Your task to perform on an android device: turn on bluetooth scan Image 0: 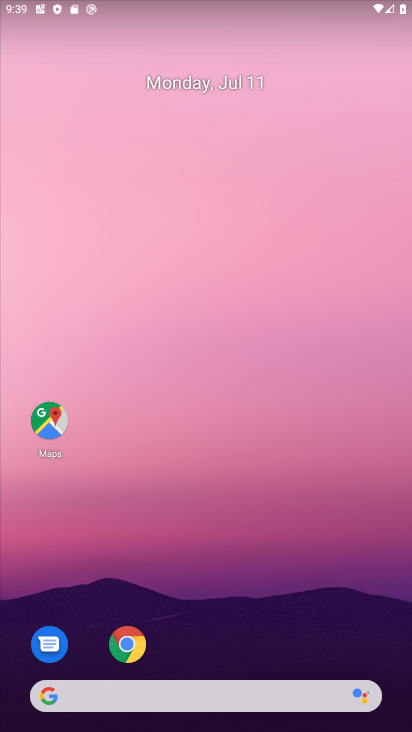
Step 0: drag from (210, 659) to (178, 170)
Your task to perform on an android device: turn on bluetooth scan Image 1: 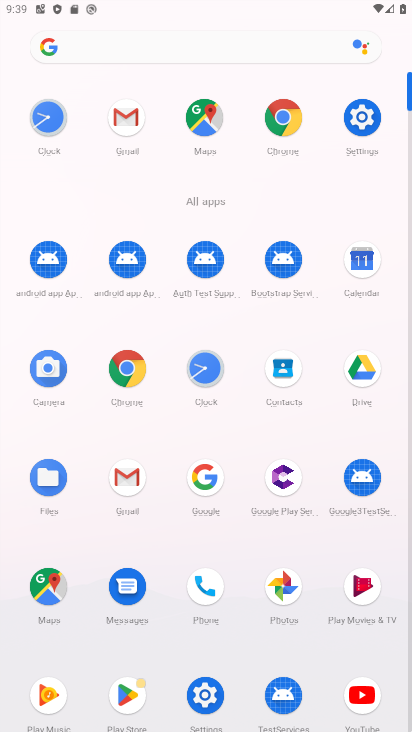
Step 1: click (362, 113)
Your task to perform on an android device: turn on bluetooth scan Image 2: 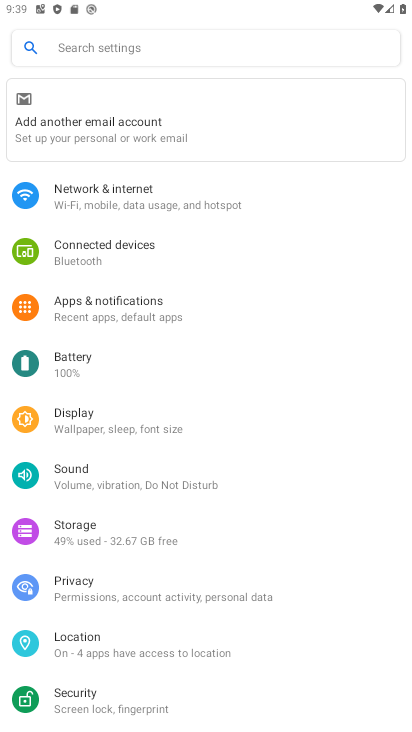
Step 2: click (120, 639)
Your task to perform on an android device: turn on bluetooth scan Image 3: 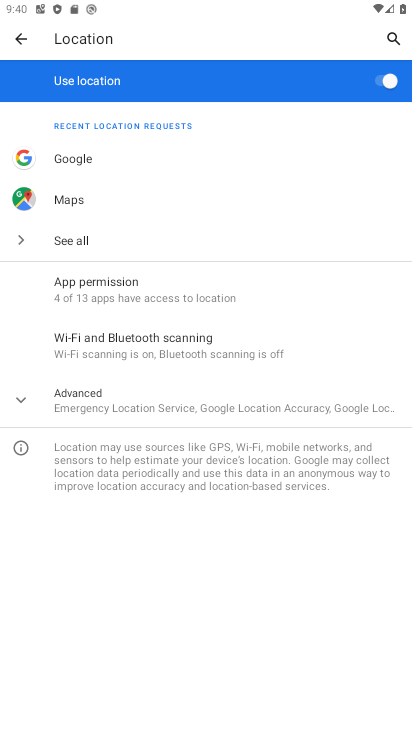
Step 3: click (145, 342)
Your task to perform on an android device: turn on bluetooth scan Image 4: 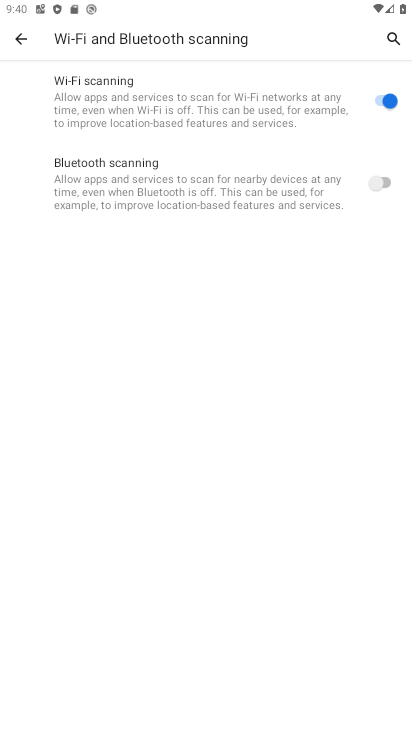
Step 4: click (379, 180)
Your task to perform on an android device: turn on bluetooth scan Image 5: 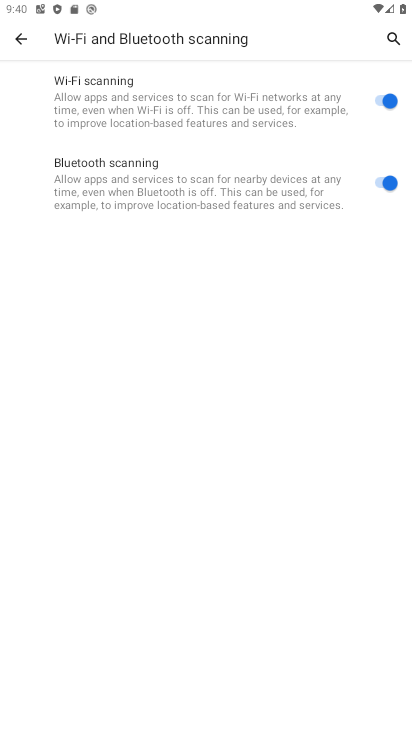
Step 5: task complete